Your task to perform on an android device: clear history in the chrome app Image 0: 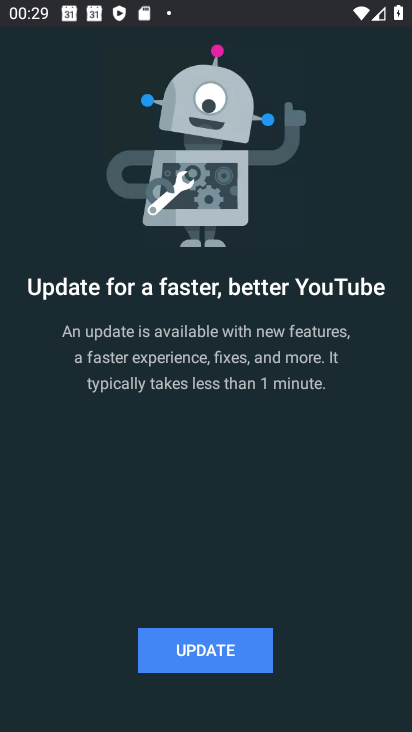
Step 0: press home button
Your task to perform on an android device: clear history in the chrome app Image 1: 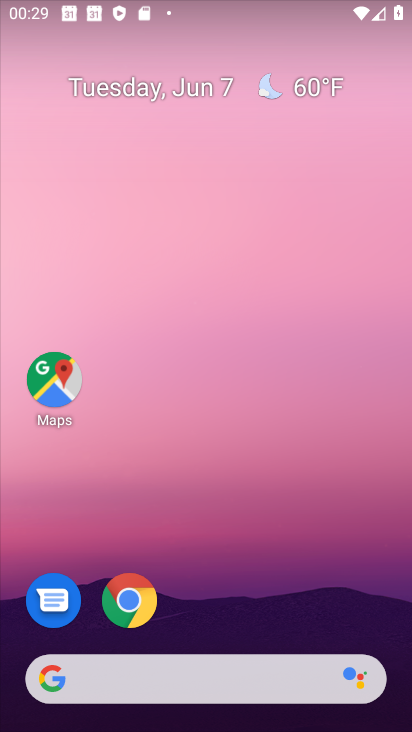
Step 1: click (127, 610)
Your task to perform on an android device: clear history in the chrome app Image 2: 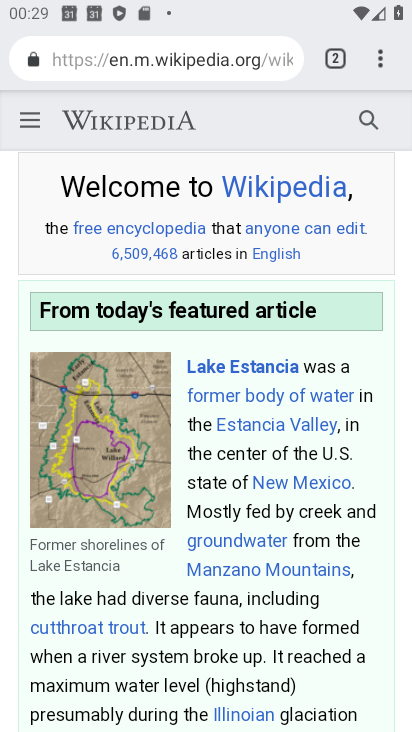
Step 2: click (381, 60)
Your task to perform on an android device: clear history in the chrome app Image 3: 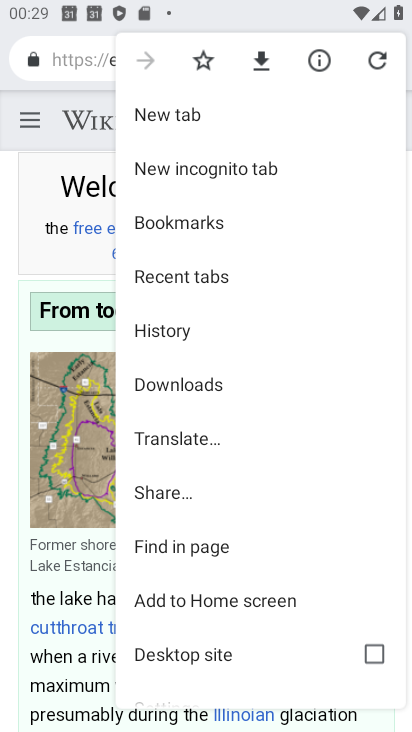
Step 3: click (151, 330)
Your task to perform on an android device: clear history in the chrome app Image 4: 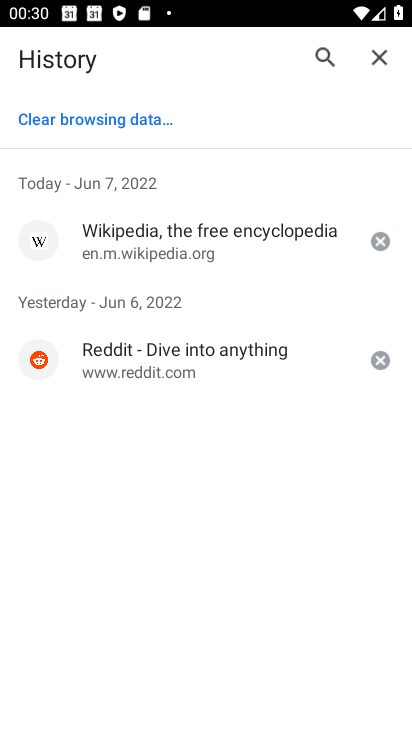
Step 4: click (142, 117)
Your task to perform on an android device: clear history in the chrome app Image 5: 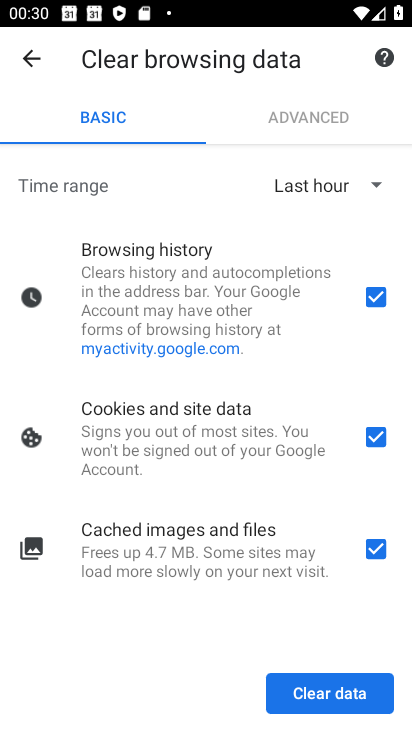
Step 5: click (374, 557)
Your task to perform on an android device: clear history in the chrome app Image 6: 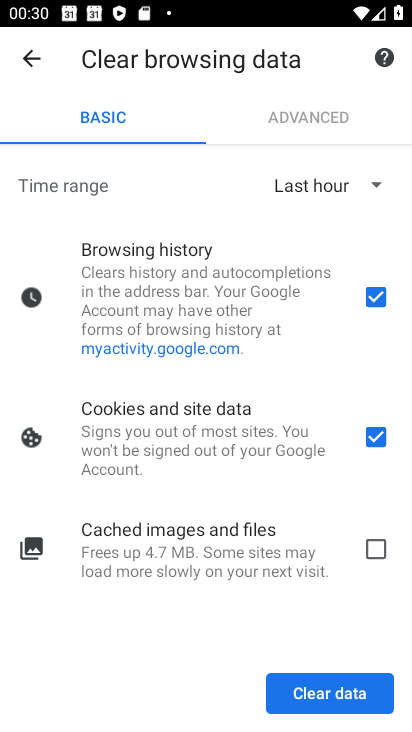
Step 6: click (375, 435)
Your task to perform on an android device: clear history in the chrome app Image 7: 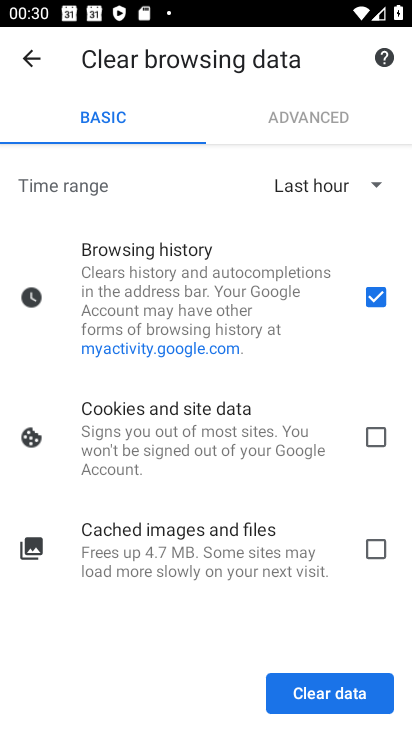
Step 7: click (317, 693)
Your task to perform on an android device: clear history in the chrome app Image 8: 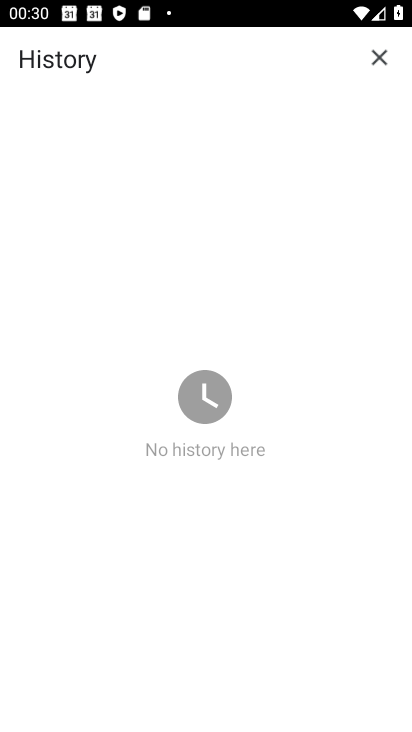
Step 8: task complete